Your task to perform on an android device: Search for Italian restaurants on Maps Image 0: 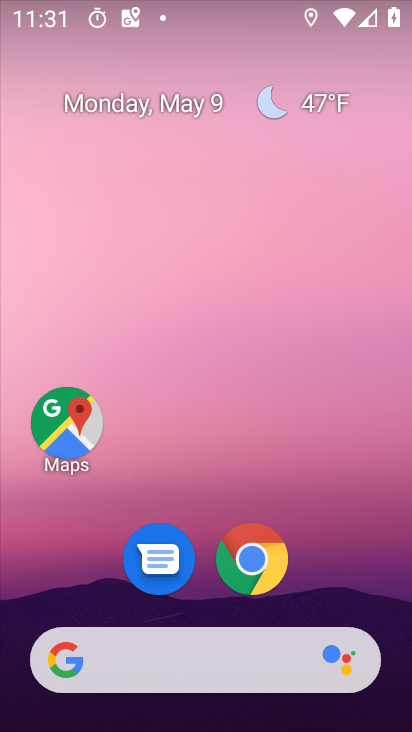
Step 0: click (69, 466)
Your task to perform on an android device: Search for Italian restaurants on Maps Image 1: 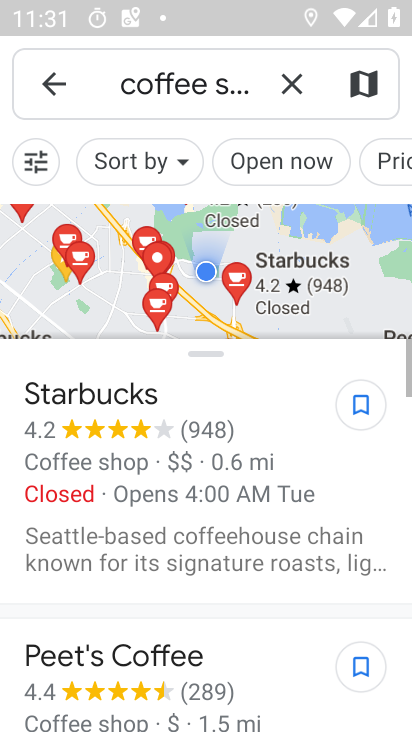
Step 1: click (288, 87)
Your task to perform on an android device: Search for Italian restaurants on Maps Image 2: 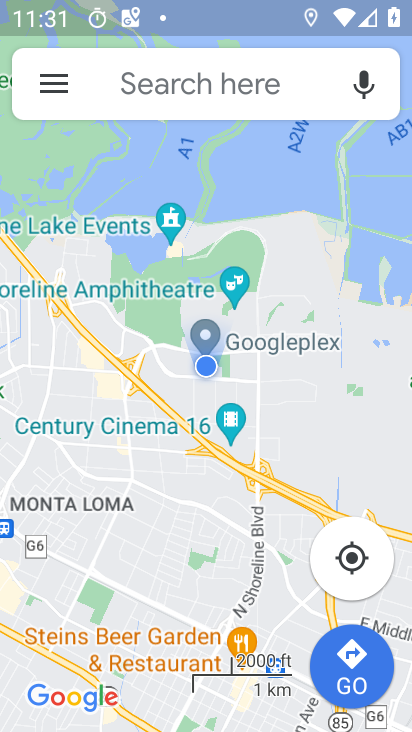
Step 2: click (267, 87)
Your task to perform on an android device: Search for Italian restaurants on Maps Image 3: 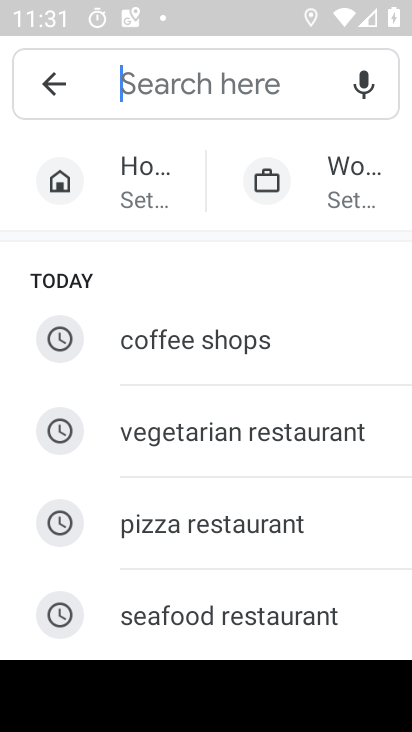
Step 3: type " Italian restaurants"
Your task to perform on an android device: Search for Italian restaurants on Maps Image 4: 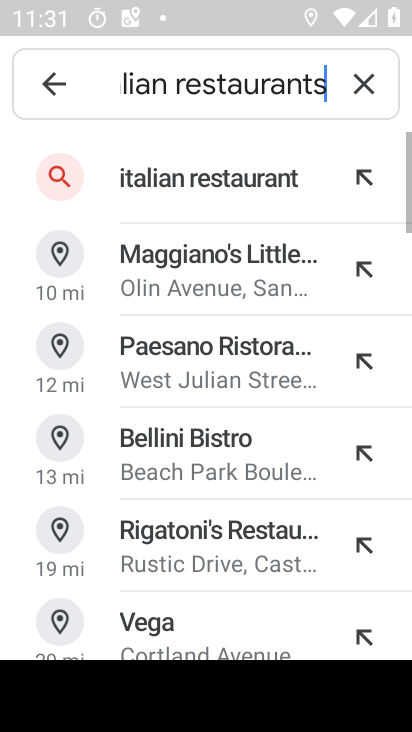
Step 4: click (129, 169)
Your task to perform on an android device: Search for Italian restaurants on Maps Image 5: 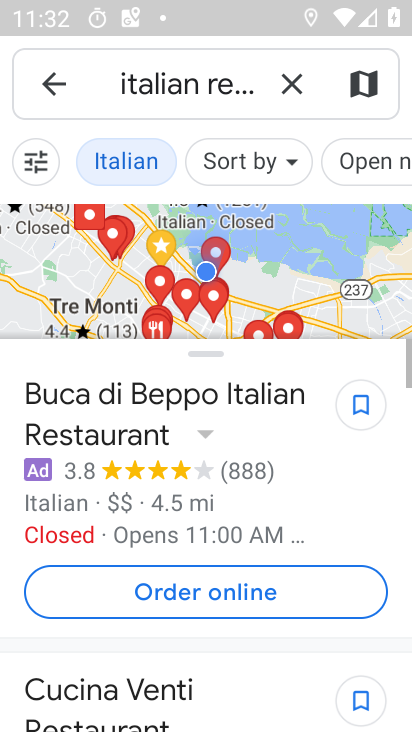
Step 5: task complete